Your task to perform on an android device: Open the map Image 0: 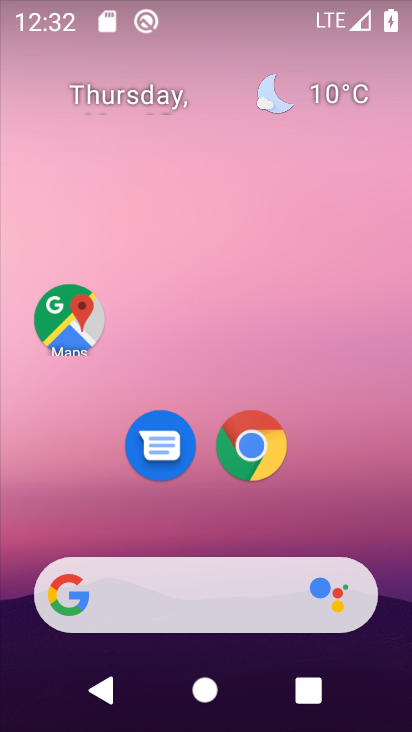
Step 0: click (66, 308)
Your task to perform on an android device: Open the map Image 1: 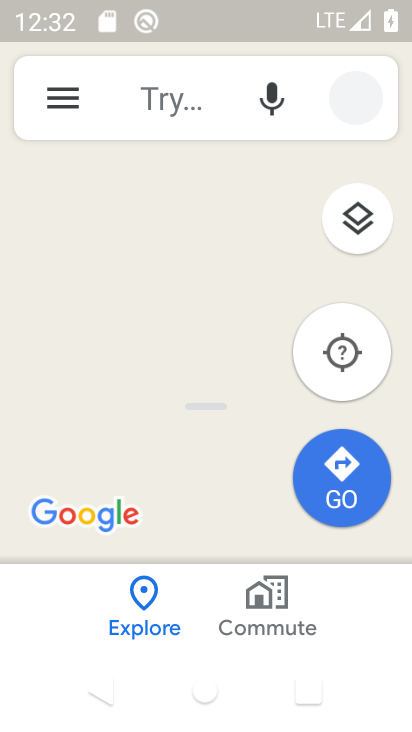
Step 1: task complete